Your task to perform on an android device: turn on showing notifications on the lock screen Image 0: 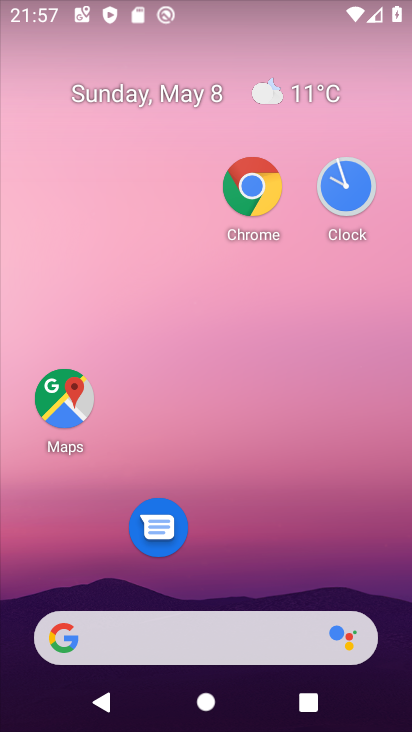
Step 0: drag from (324, 2) to (172, 602)
Your task to perform on an android device: turn on showing notifications on the lock screen Image 1: 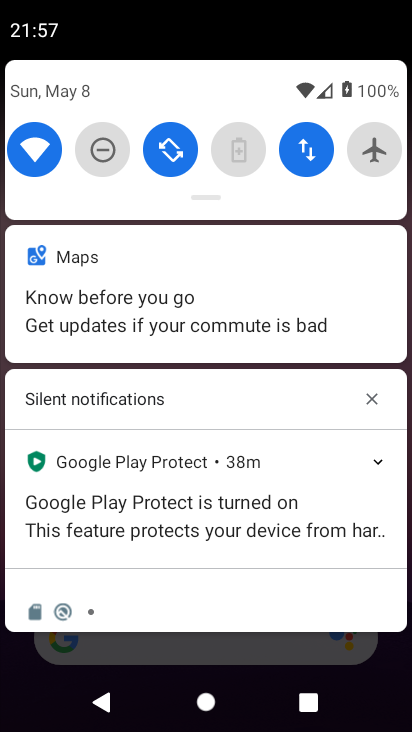
Step 1: drag from (113, 677) to (232, 276)
Your task to perform on an android device: turn on showing notifications on the lock screen Image 2: 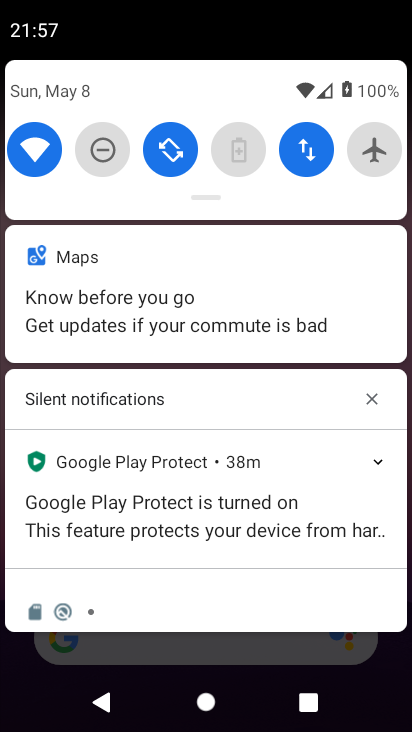
Step 2: drag from (161, 665) to (267, 193)
Your task to perform on an android device: turn on showing notifications on the lock screen Image 3: 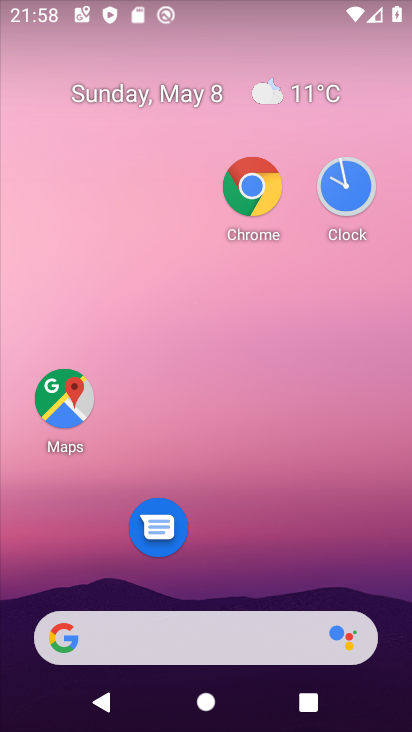
Step 3: drag from (285, 697) to (365, 123)
Your task to perform on an android device: turn on showing notifications on the lock screen Image 4: 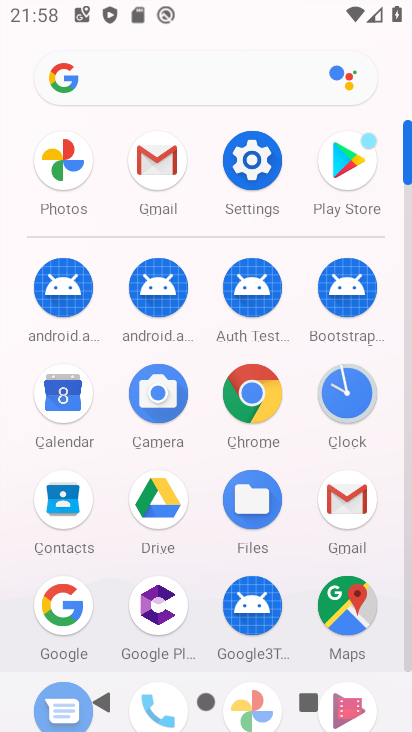
Step 4: click (253, 158)
Your task to perform on an android device: turn on showing notifications on the lock screen Image 5: 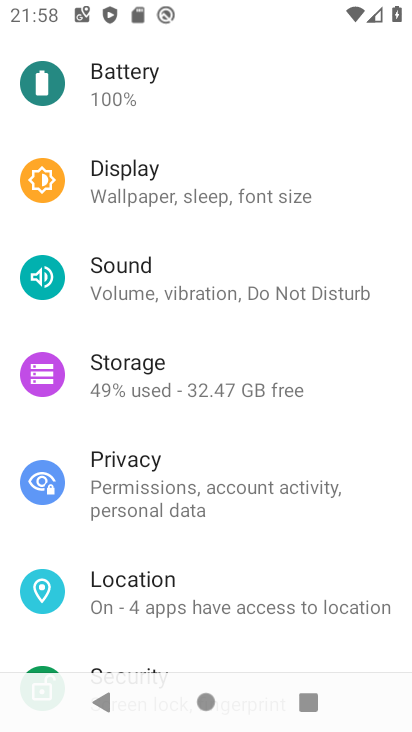
Step 5: drag from (177, 478) to (212, 150)
Your task to perform on an android device: turn on showing notifications on the lock screen Image 6: 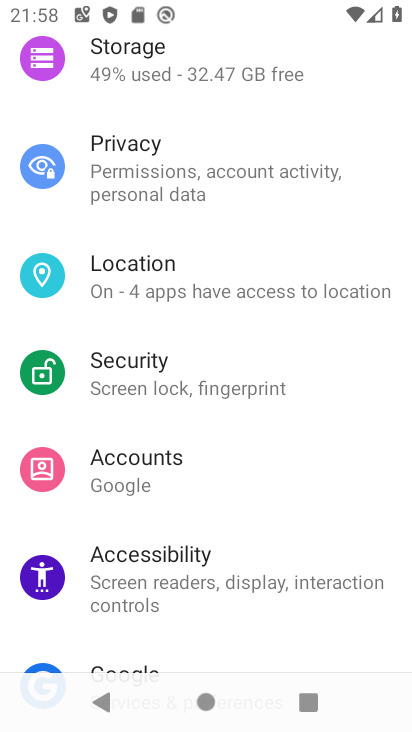
Step 6: drag from (293, 64) to (239, 717)
Your task to perform on an android device: turn on showing notifications on the lock screen Image 7: 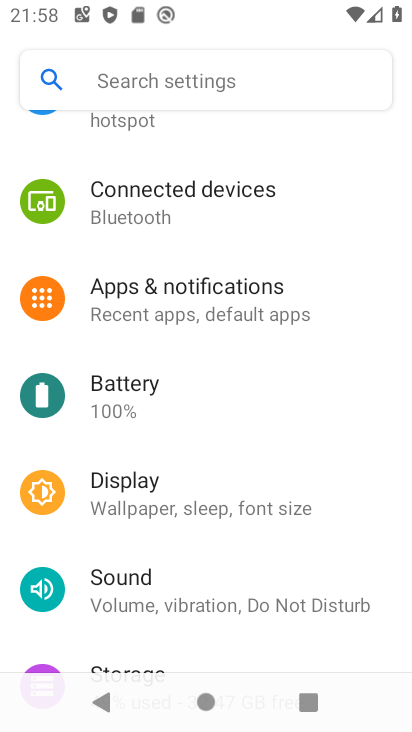
Step 7: drag from (285, 315) to (290, 542)
Your task to perform on an android device: turn on showing notifications on the lock screen Image 8: 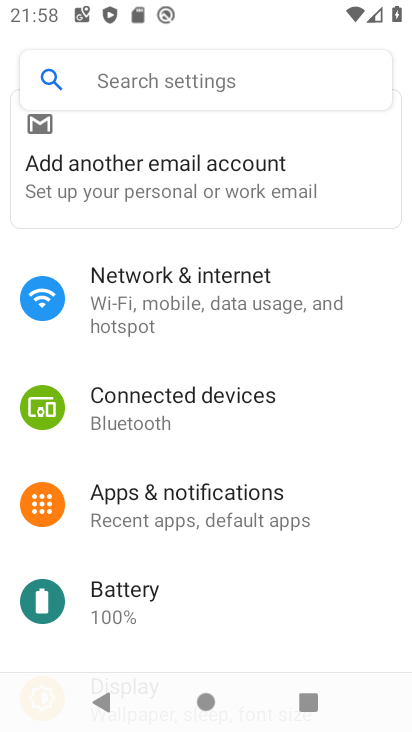
Step 8: click (251, 508)
Your task to perform on an android device: turn on showing notifications on the lock screen Image 9: 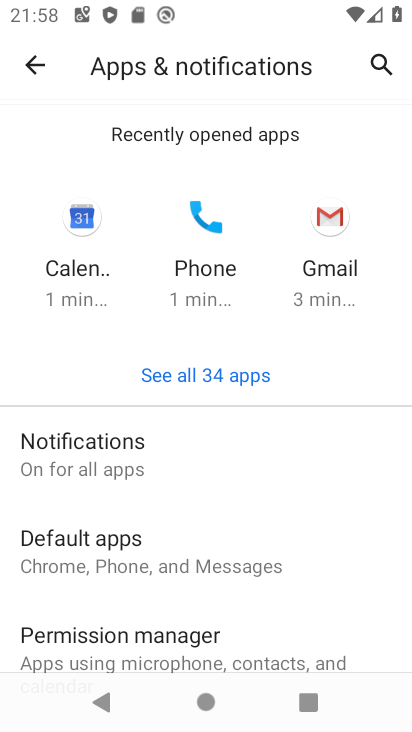
Step 9: click (173, 453)
Your task to perform on an android device: turn on showing notifications on the lock screen Image 10: 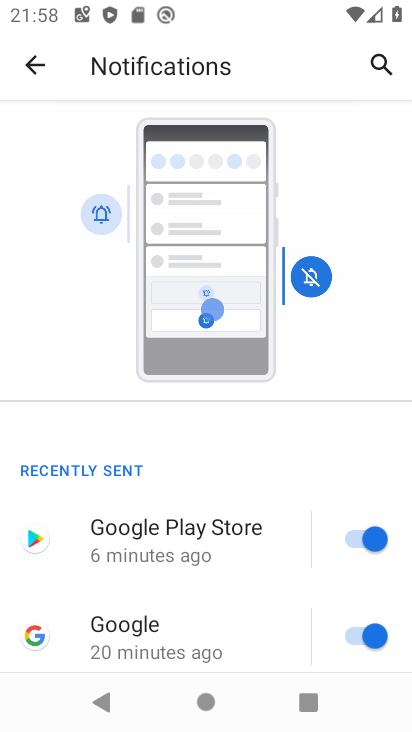
Step 10: drag from (189, 579) to (264, 165)
Your task to perform on an android device: turn on showing notifications on the lock screen Image 11: 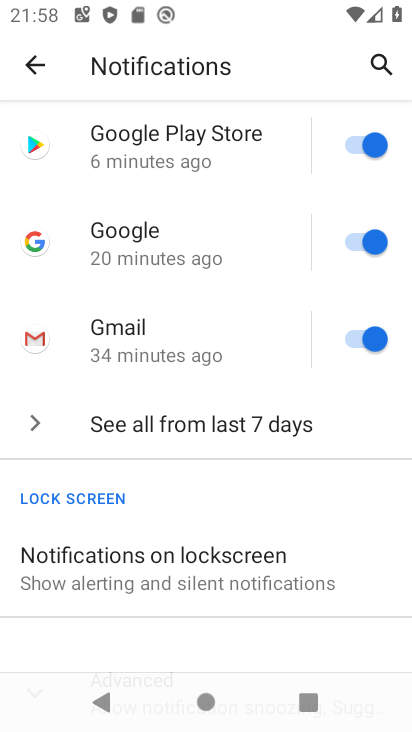
Step 11: click (241, 552)
Your task to perform on an android device: turn on showing notifications on the lock screen Image 12: 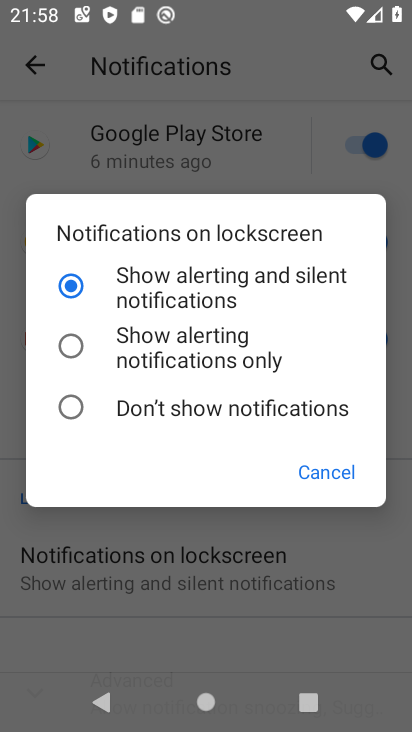
Step 12: click (242, 289)
Your task to perform on an android device: turn on showing notifications on the lock screen Image 13: 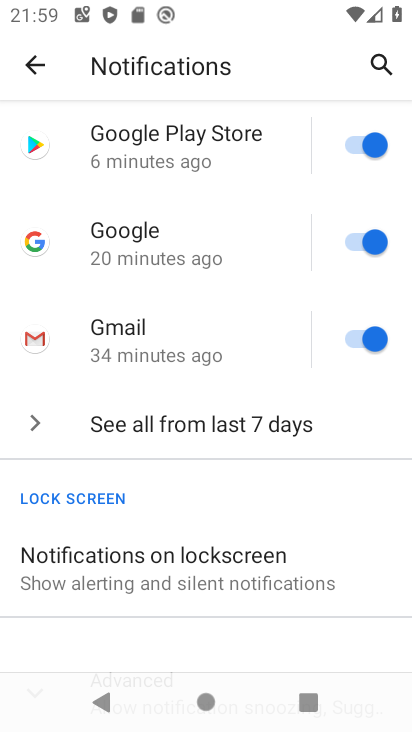
Step 13: task complete